Your task to perform on an android device: Show me popular games on the Play Store Image 0: 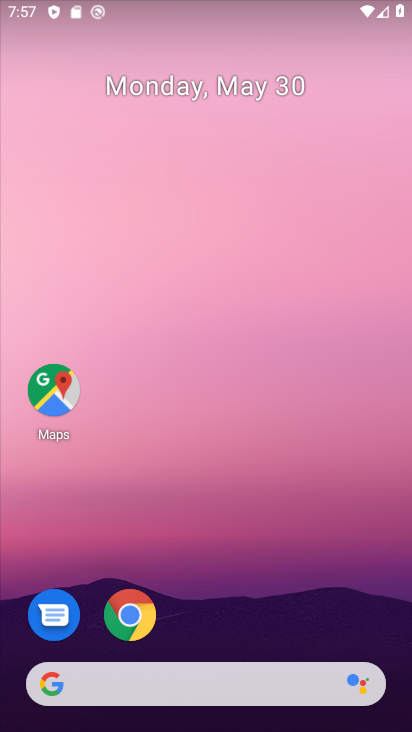
Step 0: press home button
Your task to perform on an android device: Show me popular games on the Play Store Image 1: 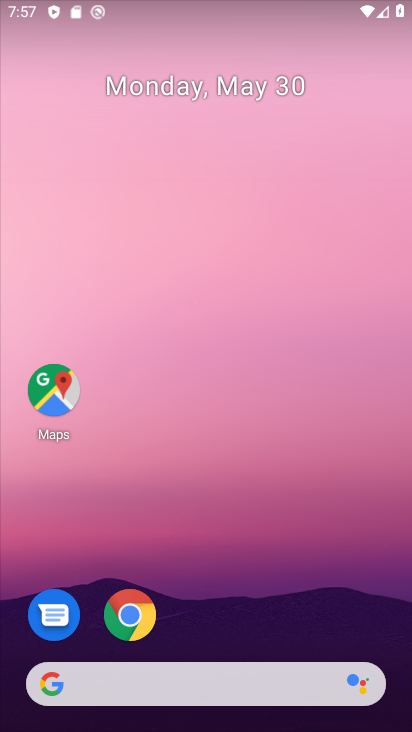
Step 1: drag from (229, 639) to (229, 75)
Your task to perform on an android device: Show me popular games on the Play Store Image 2: 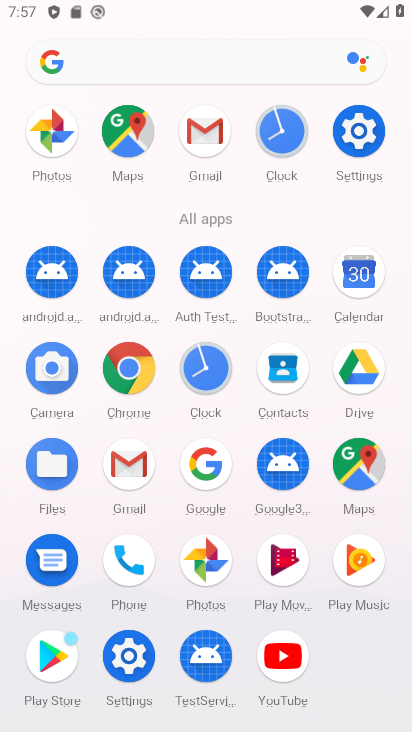
Step 2: click (53, 644)
Your task to perform on an android device: Show me popular games on the Play Store Image 3: 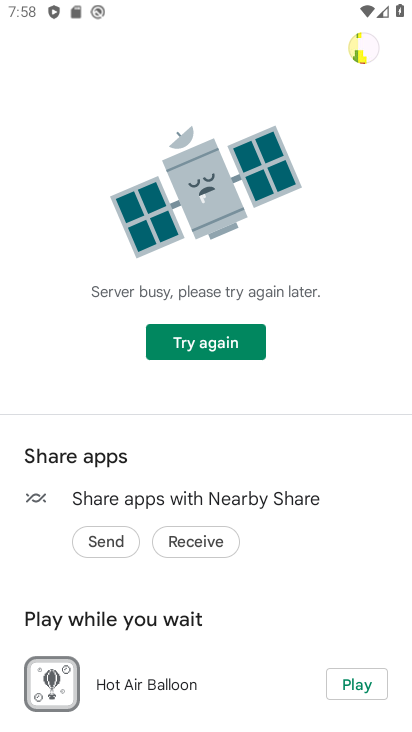
Step 3: click (212, 344)
Your task to perform on an android device: Show me popular games on the Play Store Image 4: 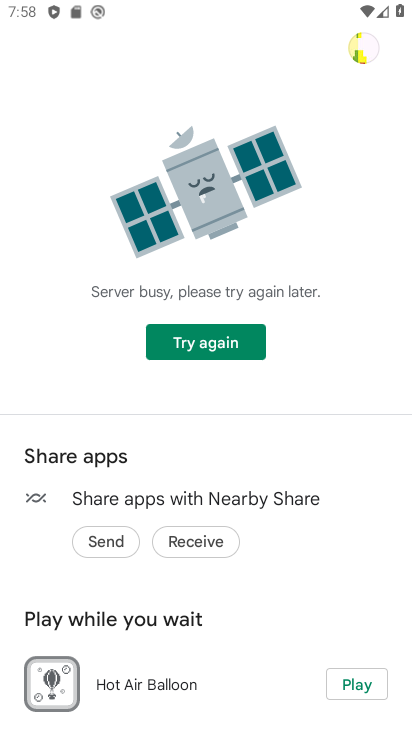
Step 4: task complete